Your task to perform on an android device: check google app version Image 0: 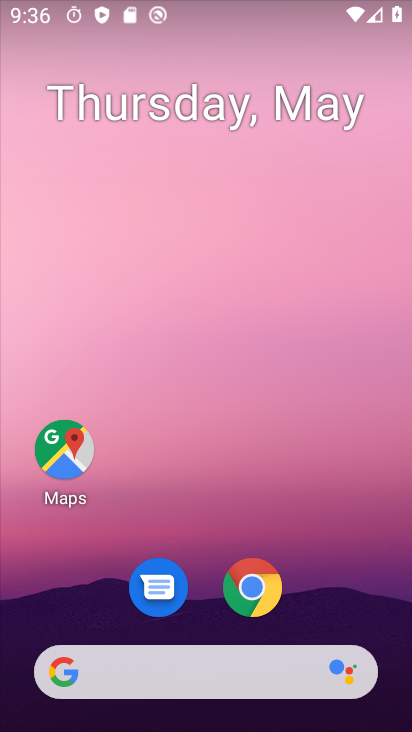
Step 0: drag from (363, 632) to (342, 13)
Your task to perform on an android device: check google app version Image 1: 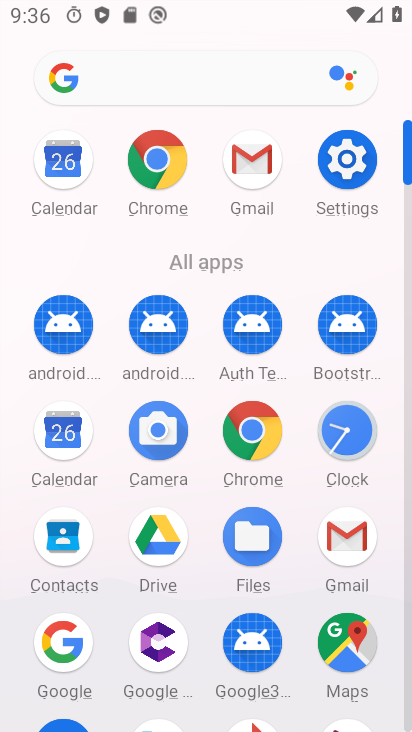
Step 1: click (60, 649)
Your task to perform on an android device: check google app version Image 2: 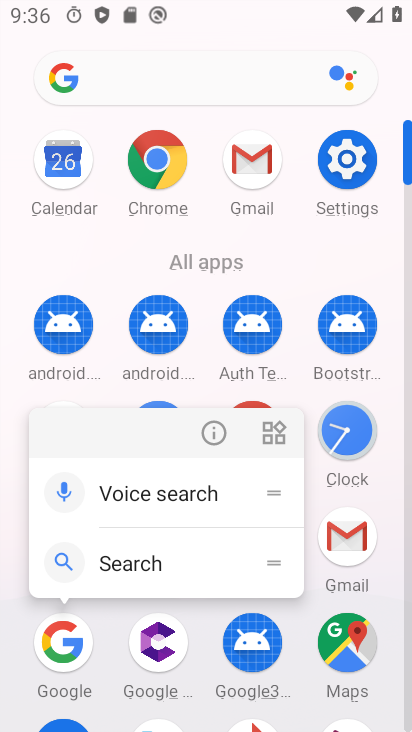
Step 2: click (215, 438)
Your task to perform on an android device: check google app version Image 3: 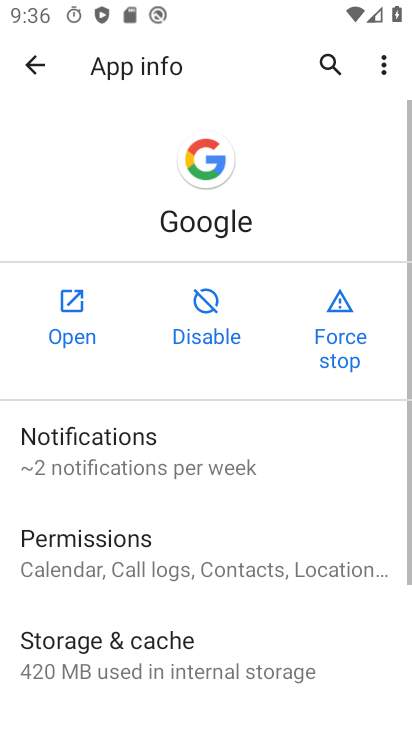
Step 3: drag from (330, 652) to (295, 81)
Your task to perform on an android device: check google app version Image 4: 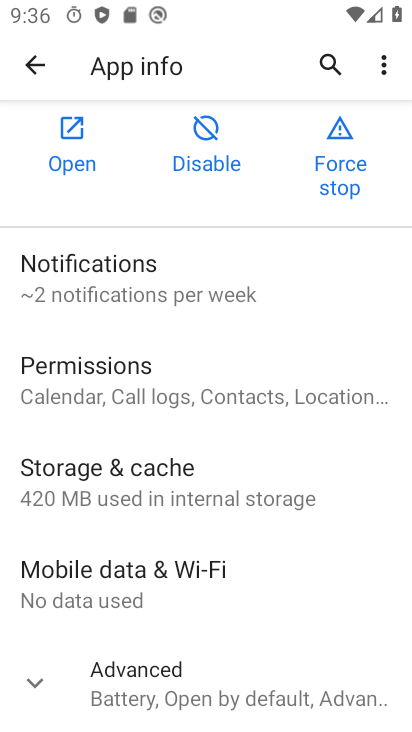
Step 4: click (38, 688)
Your task to perform on an android device: check google app version Image 5: 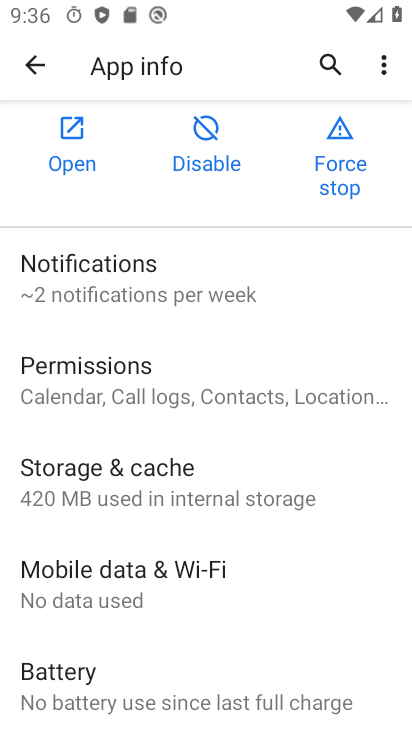
Step 5: task complete